Your task to perform on an android device: Show me popular games on the Play Store Image 0: 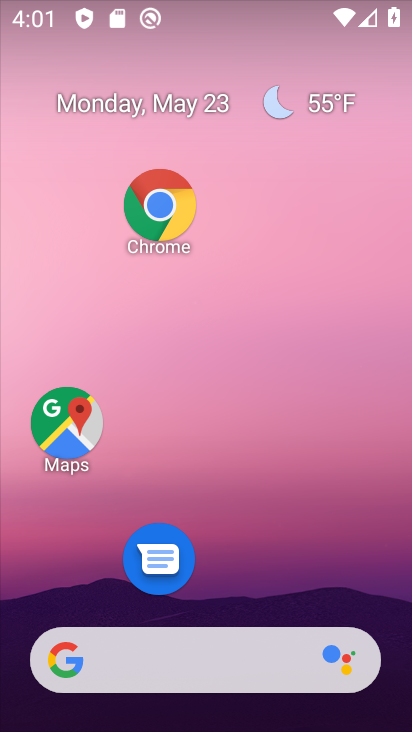
Step 0: drag from (307, 703) to (229, 148)
Your task to perform on an android device: Show me popular games on the Play Store Image 1: 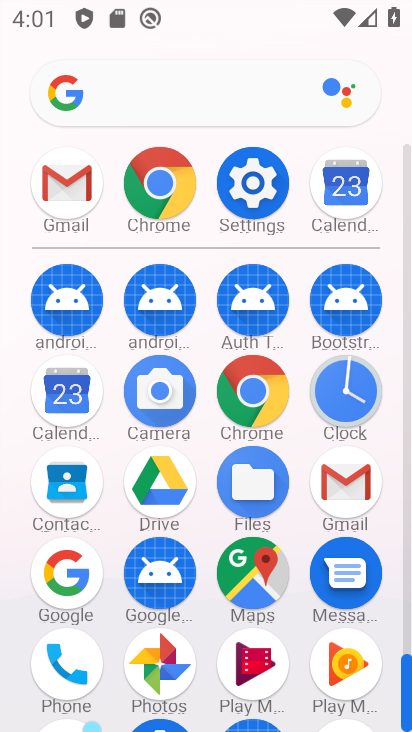
Step 1: drag from (194, 623) to (218, 317)
Your task to perform on an android device: Show me popular games on the Play Store Image 2: 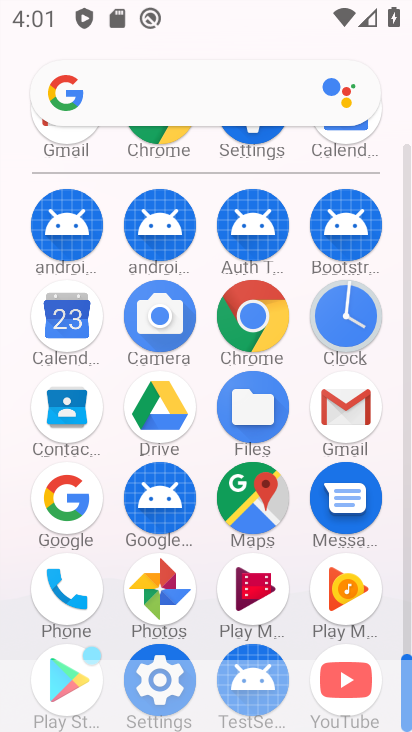
Step 2: drag from (214, 486) to (193, 381)
Your task to perform on an android device: Show me popular games on the Play Store Image 3: 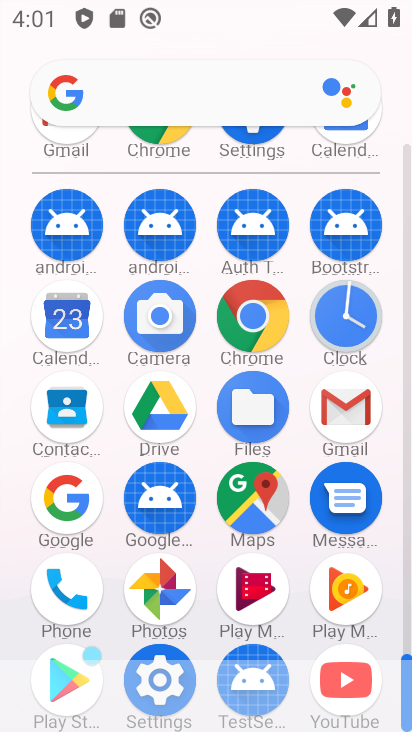
Step 3: drag from (187, 519) to (182, 300)
Your task to perform on an android device: Show me popular games on the Play Store Image 4: 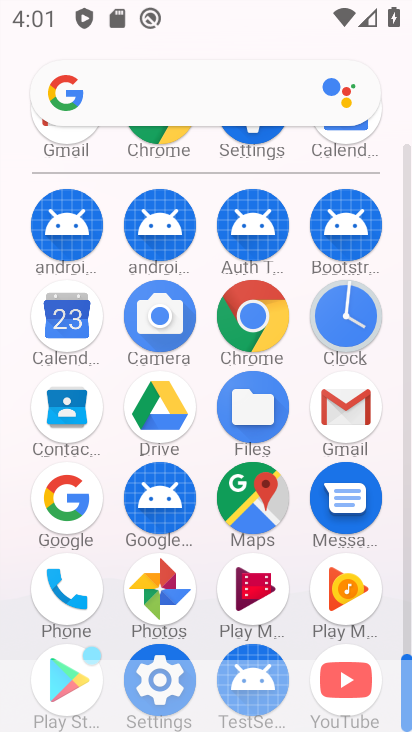
Step 4: drag from (186, 544) to (198, 232)
Your task to perform on an android device: Show me popular games on the Play Store Image 5: 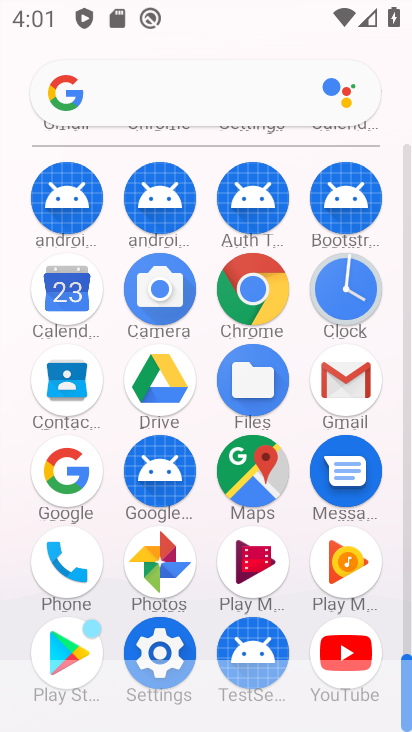
Step 5: drag from (251, 476) to (251, 195)
Your task to perform on an android device: Show me popular games on the Play Store Image 6: 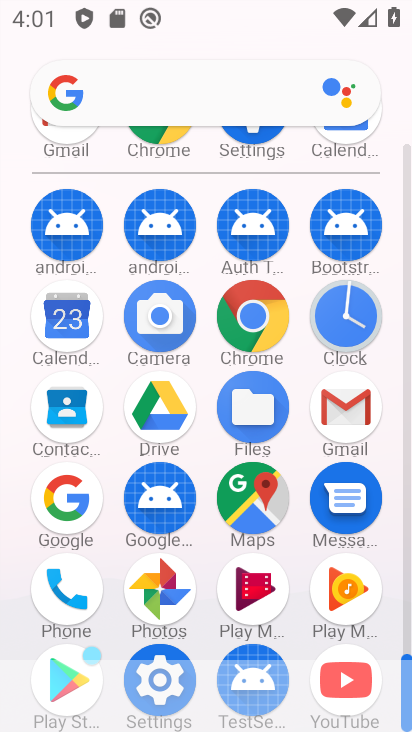
Step 6: drag from (196, 555) to (181, 239)
Your task to perform on an android device: Show me popular games on the Play Store Image 7: 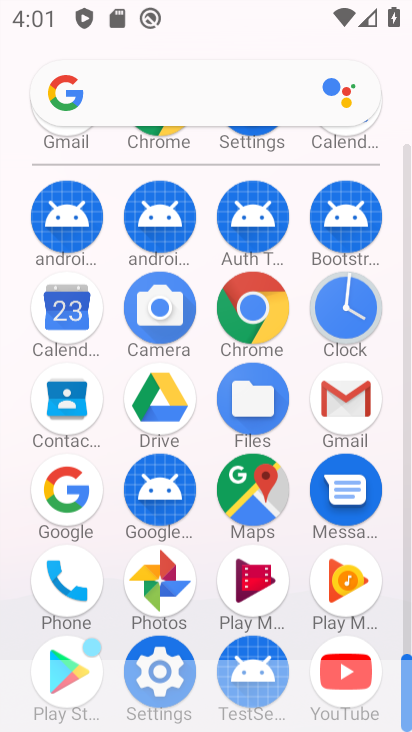
Step 7: drag from (249, 550) to (220, 274)
Your task to perform on an android device: Show me popular games on the Play Store Image 8: 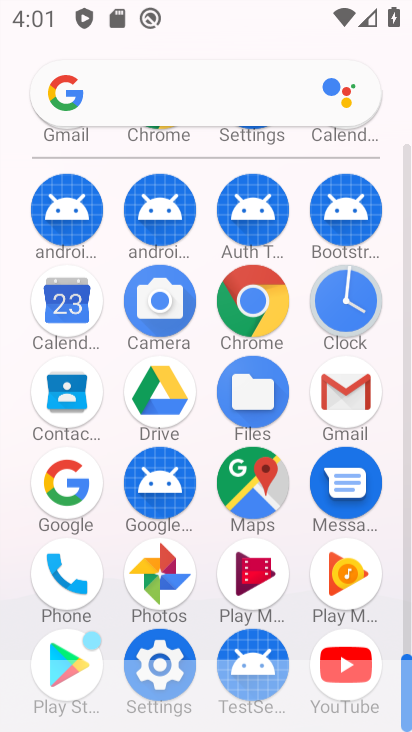
Step 8: drag from (232, 601) to (232, 316)
Your task to perform on an android device: Show me popular games on the Play Store Image 9: 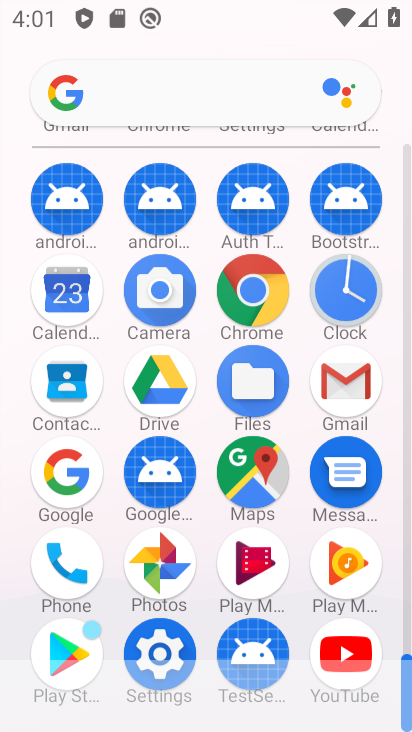
Step 9: drag from (225, 594) to (207, 402)
Your task to perform on an android device: Show me popular games on the Play Store Image 10: 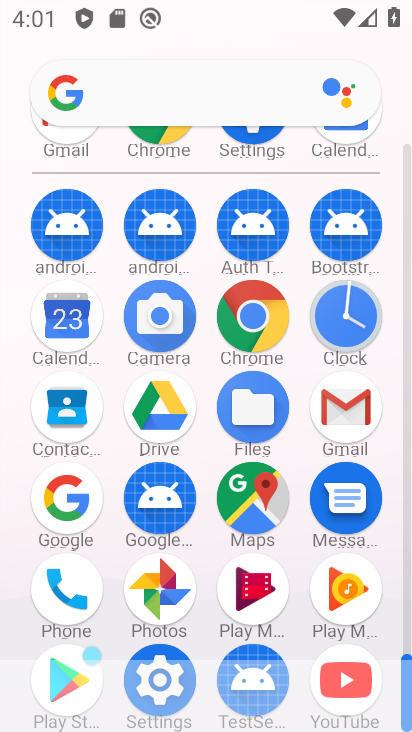
Step 10: drag from (79, 510) to (65, 105)
Your task to perform on an android device: Show me popular games on the Play Store Image 11: 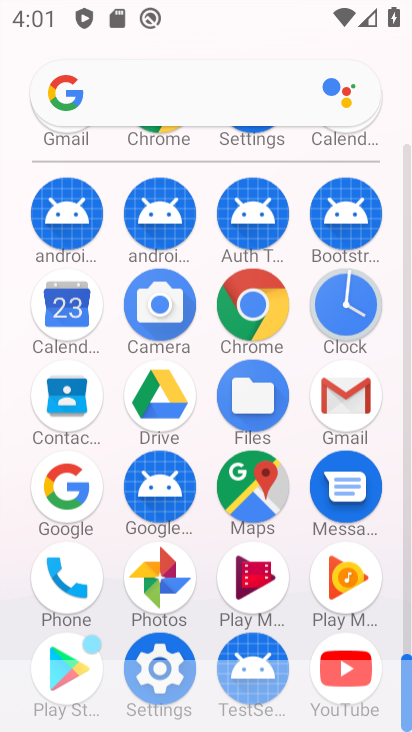
Step 11: drag from (101, 441) to (121, 115)
Your task to perform on an android device: Show me popular games on the Play Store Image 12: 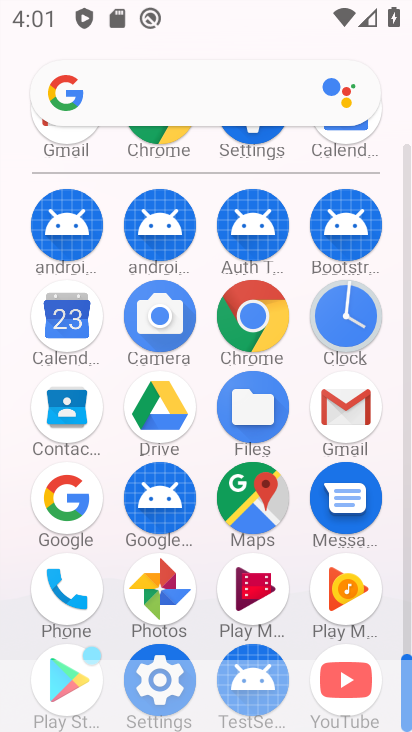
Step 12: click (87, 650)
Your task to perform on an android device: Show me popular games on the Play Store Image 13: 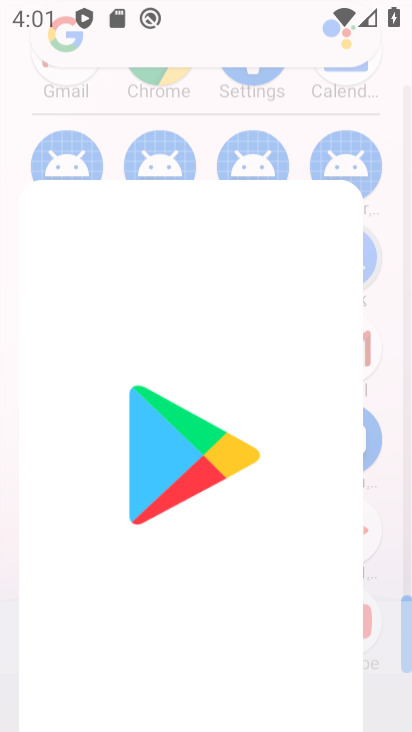
Step 13: click (66, 661)
Your task to perform on an android device: Show me popular games on the Play Store Image 14: 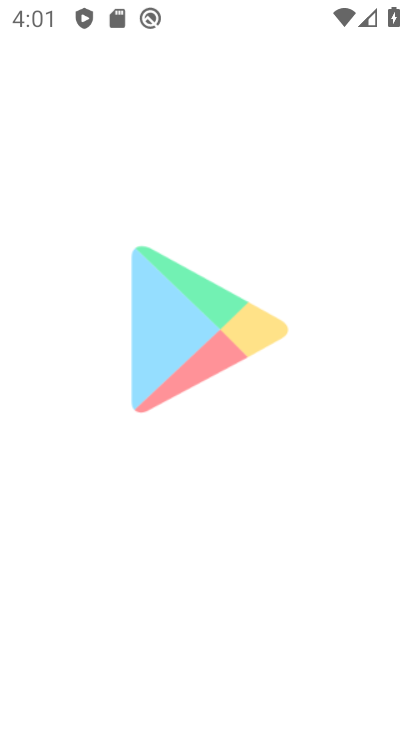
Step 14: click (62, 663)
Your task to perform on an android device: Show me popular games on the Play Store Image 15: 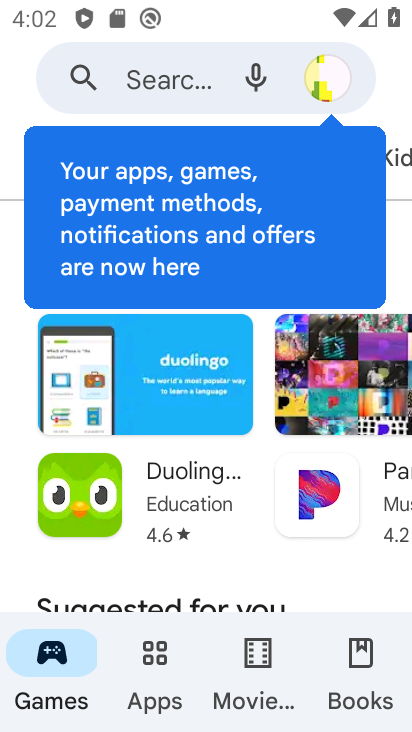
Step 15: task complete